Your task to perform on an android device: Open the Play Movies app and select the watchlist tab. Image 0: 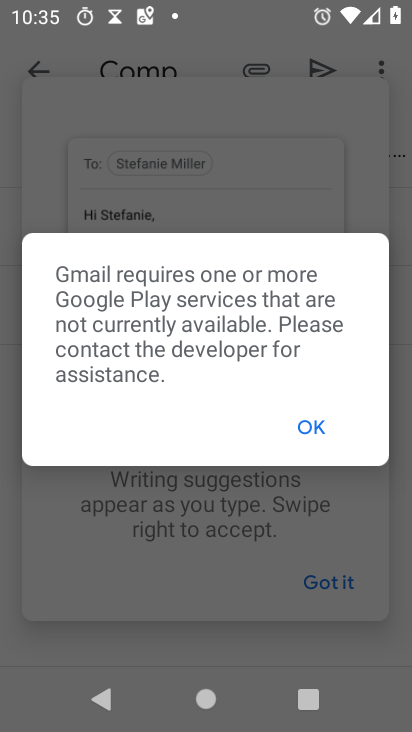
Step 0: press home button
Your task to perform on an android device: Open the Play Movies app and select the watchlist tab. Image 1: 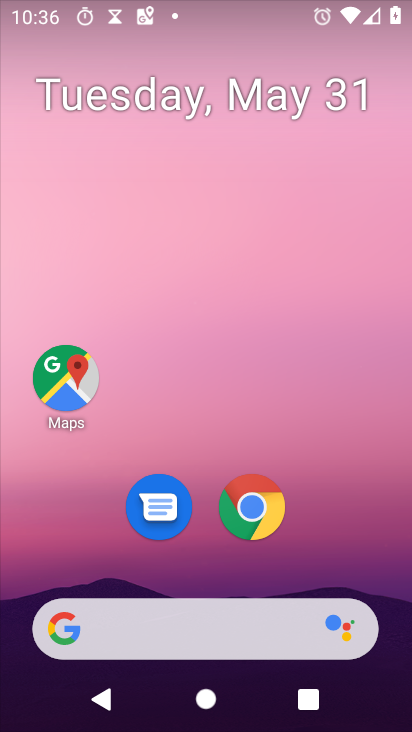
Step 1: drag from (30, 511) to (232, 227)
Your task to perform on an android device: Open the Play Movies app and select the watchlist tab. Image 2: 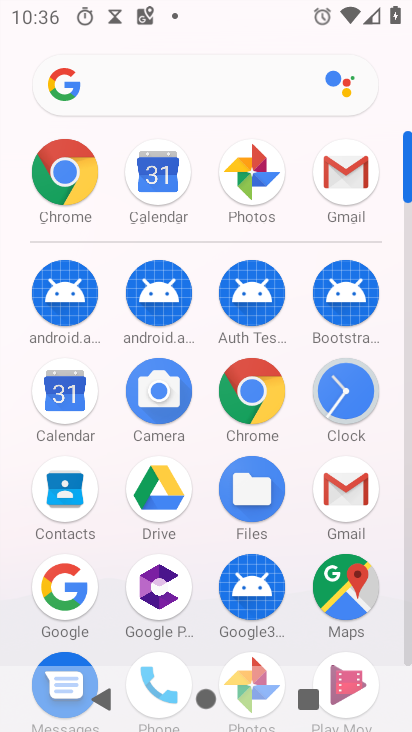
Step 2: click (345, 658)
Your task to perform on an android device: Open the Play Movies app and select the watchlist tab. Image 3: 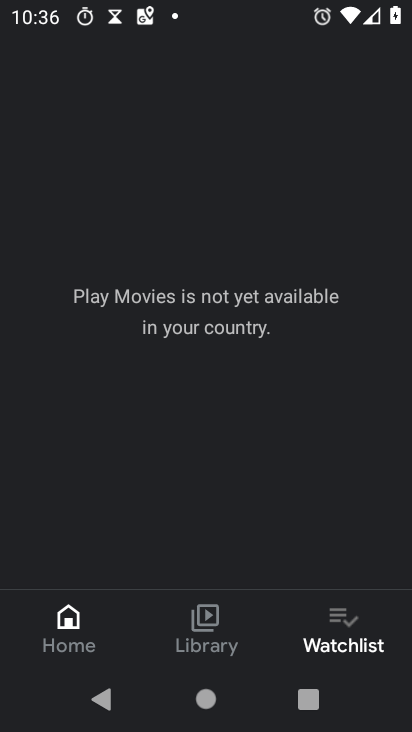
Step 3: task complete